Your task to perform on an android device: Open Android settings Image 0: 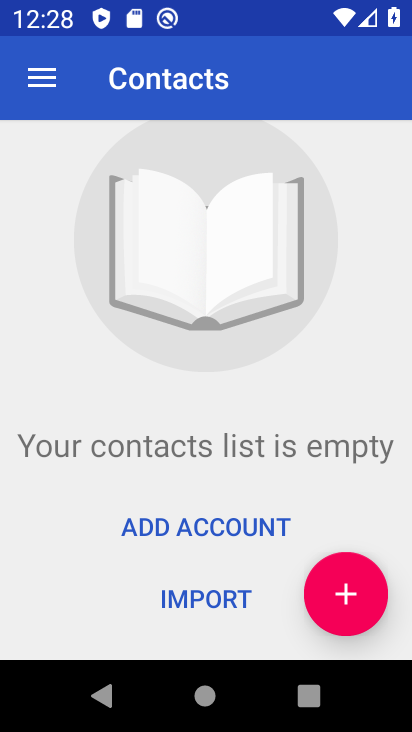
Step 0: press home button
Your task to perform on an android device: Open Android settings Image 1: 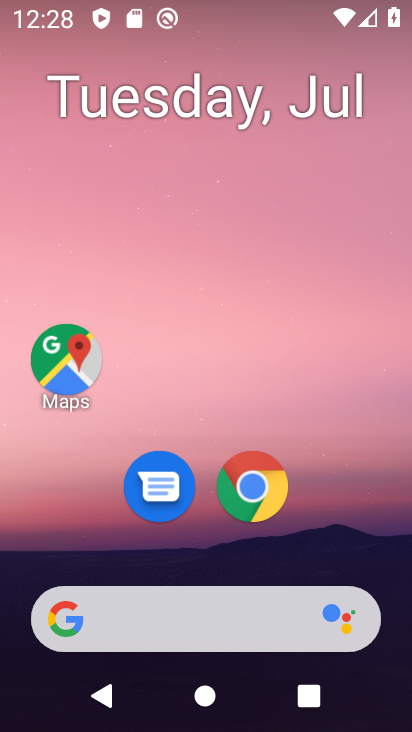
Step 1: drag from (357, 548) to (365, 110)
Your task to perform on an android device: Open Android settings Image 2: 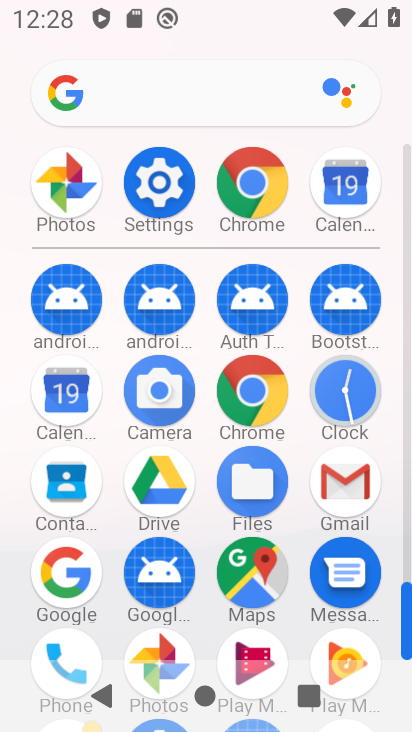
Step 2: click (161, 190)
Your task to perform on an android device: Open Android settings Image 3: 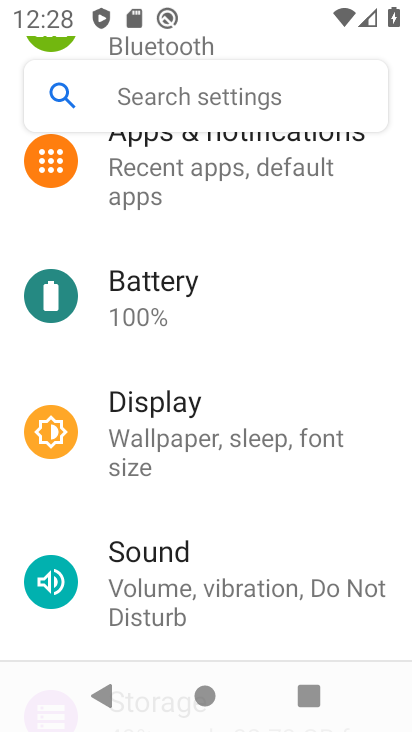
Step 3: drag from (350, 247) to (367, 415)
Your task to perform on an android device: Open Android settings Image 4: 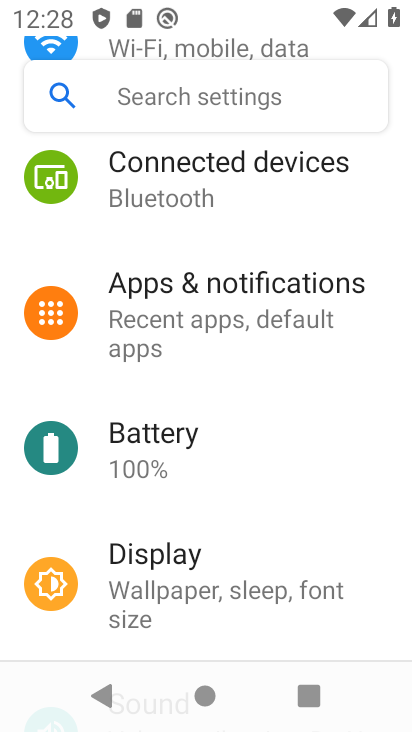
Step 4: drag from (364, 238) to (364, 377)
Your task to perform on an android device: Open Android settings Image 5: 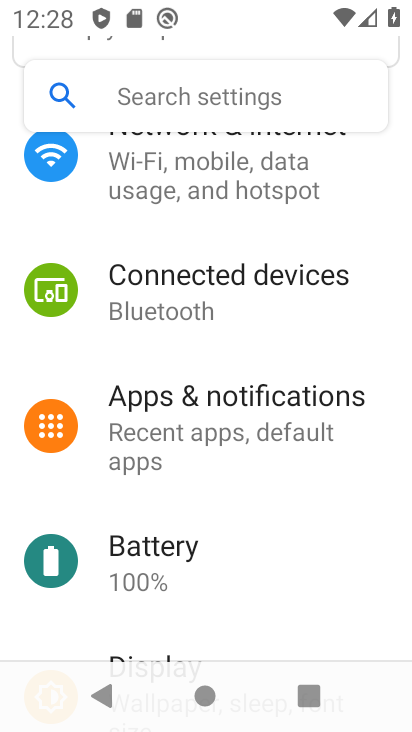
Step 5: drag from (379, 214) to (370, 388)
Your task to perform on an android device: Open Android settings Image 6: 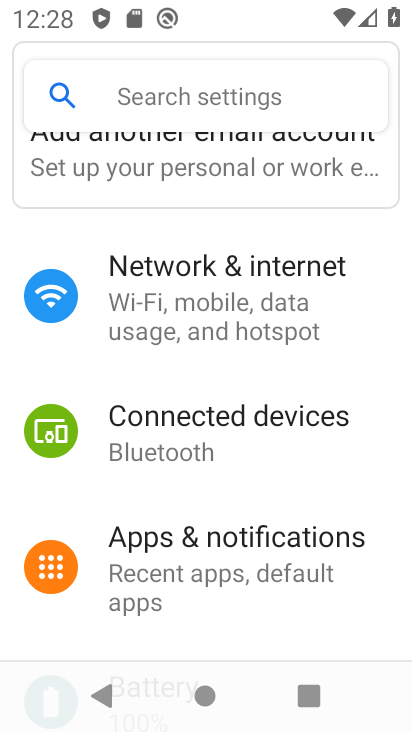
Step 6: drag from (367, 283) to (368, 458)
Your task to perform on an android device: Open Android settings Image 7: 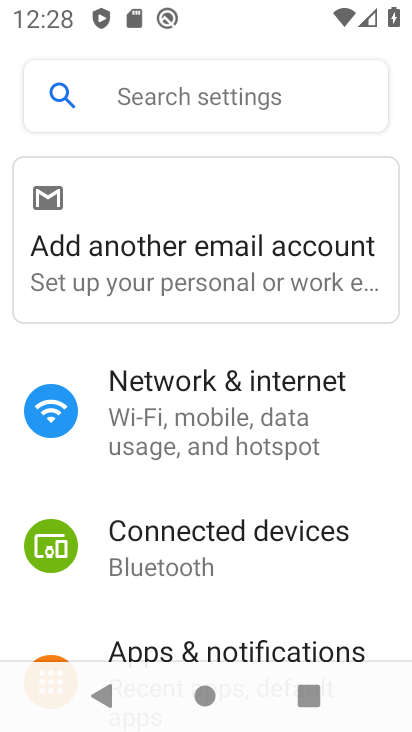
Step 7: drag from (362, 505) to (374, 414)
Your task to perform on an android device: Open Android settings Image 8: 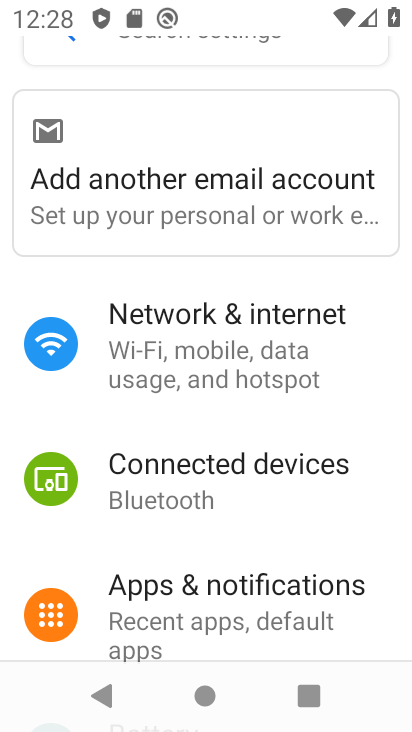
Step 8: drag from (369, 529) to (363, 411)
Your task to perform on an android device: Open Android settings Image 9: 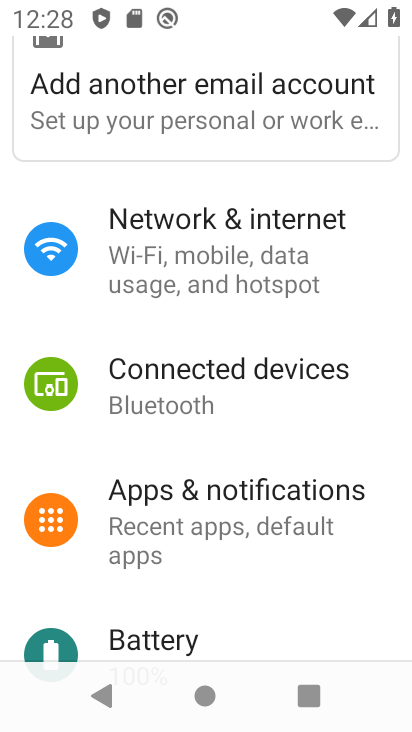
Step 9: drag from (369, 574) to (364, 447)
Your task to perform on an android device: Open Android settings Image 10: 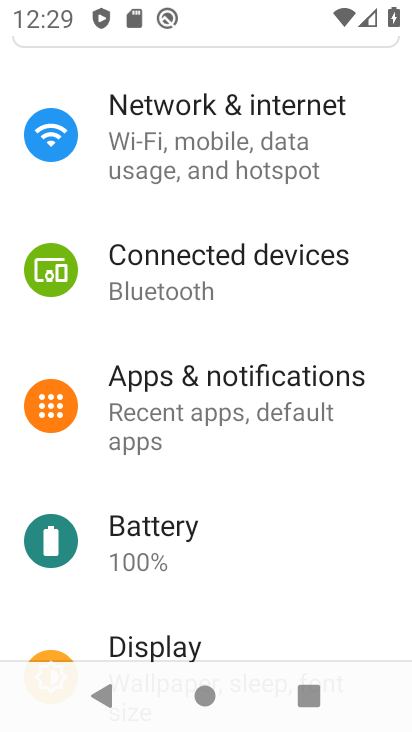
Step 10: drag from (347, 558) to (346, 434)
Your task to perform on an android device: Open Android settings Image 11: 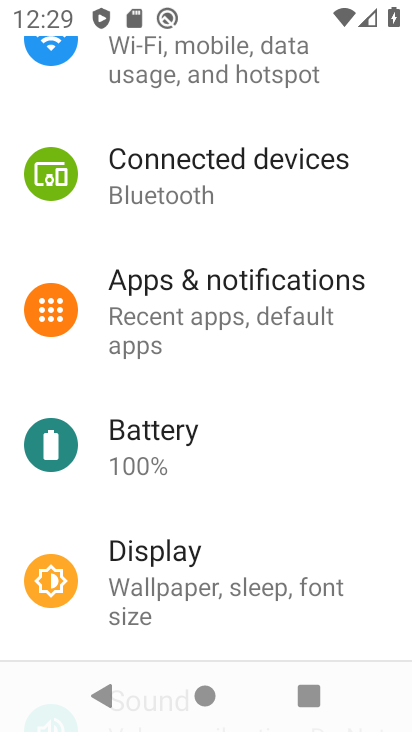
Step 11: drag from (356, 601) to (360, 474)
Your task to perform on an android device: Open Android settings Image 12: 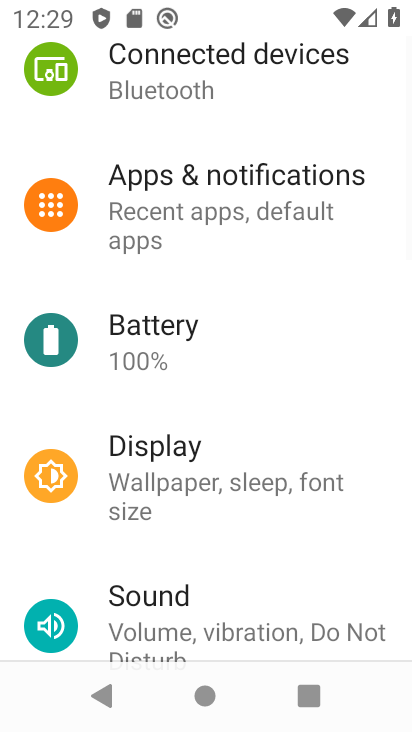
Step 12: drag from (356, 586) to (358, 399)
Your task to perform on an android device: Open Android settings Image 13: 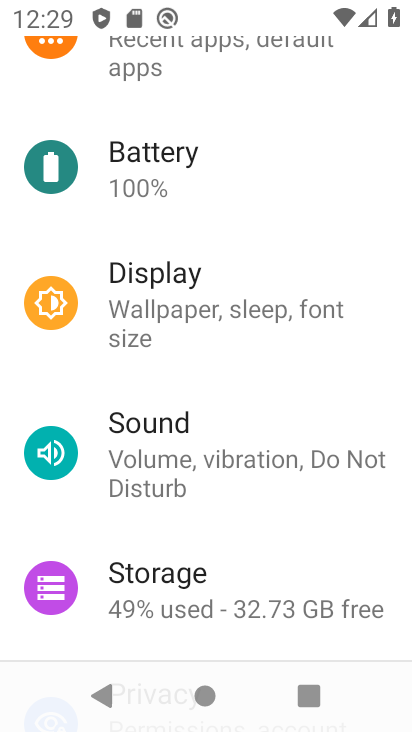
Step 13: drag from (365, 529) to (379, 351)
Your task to perform on an android device: Open Android settings Image 14: 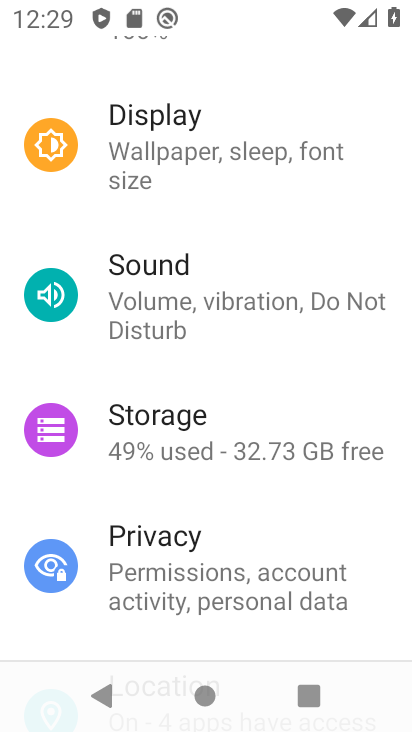
Step 14: drag from (350, 506) to (350, 359)
Your task to perform on an android device: Open Android settings Image 15: 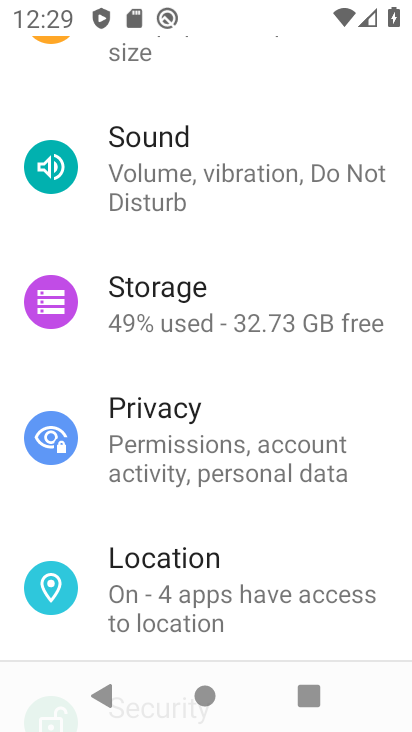
Step 15: drag from (348, 529) to (359, 404)
Your task to perform on an android device: Open Android settings Image 16: 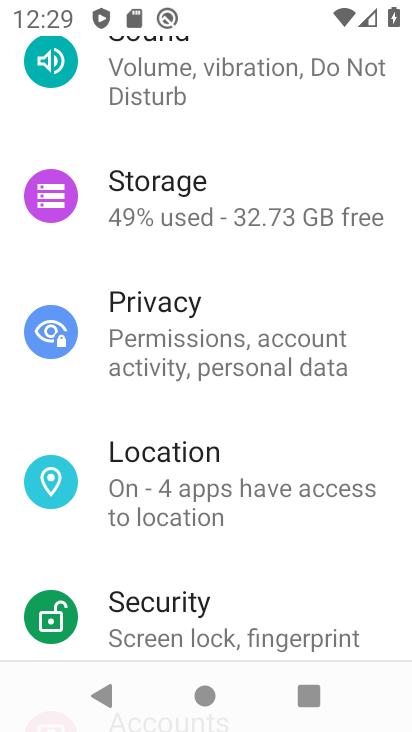
Step 16: drag from (336, 555) to (333, 413)
Your task to perform on an android device: Open Android settings Image 17: 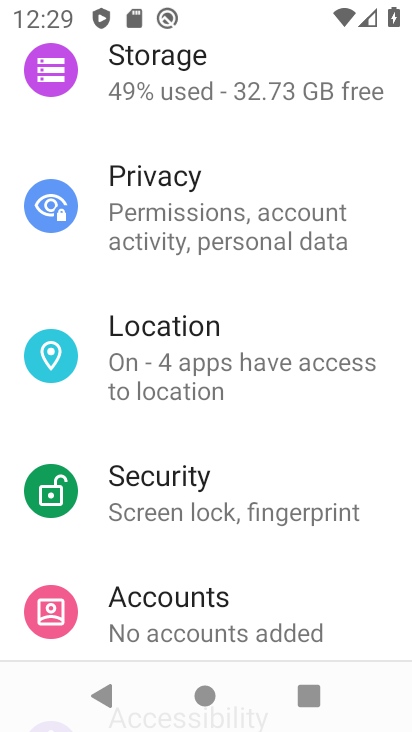
Step 17: drag from (336, 574) to (336, 448)
Your task to perform on an android device: Open Android settings Image 18: 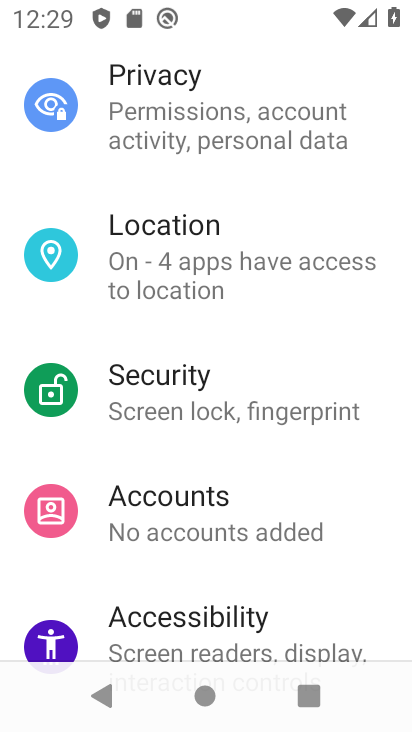
Step 18: drag from (345, 568) to (362, 456)
Your task to perform on an android device: Open Android settings Image 19: 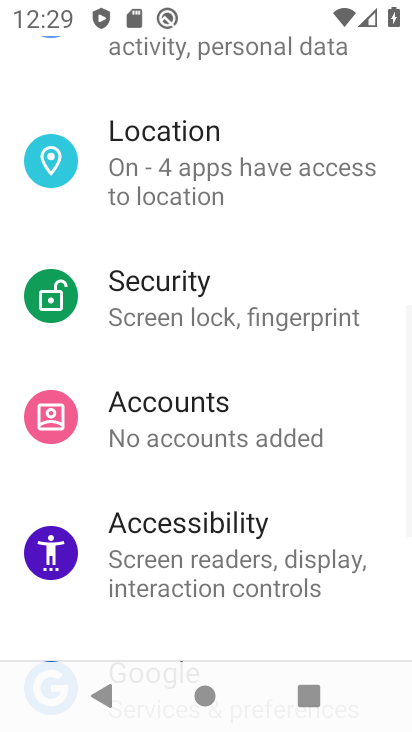
Step 19: drag from (355, 612) to (366, 423)
Your task to perform on an android device: Open Android settings Image 20: 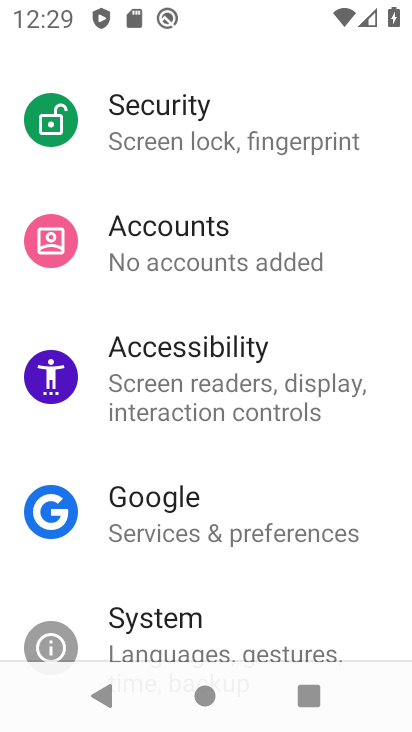
Step 20: drag from (342, 612) to (346, 498)
Your task to perform on an android device: Open Android settings Image 21: 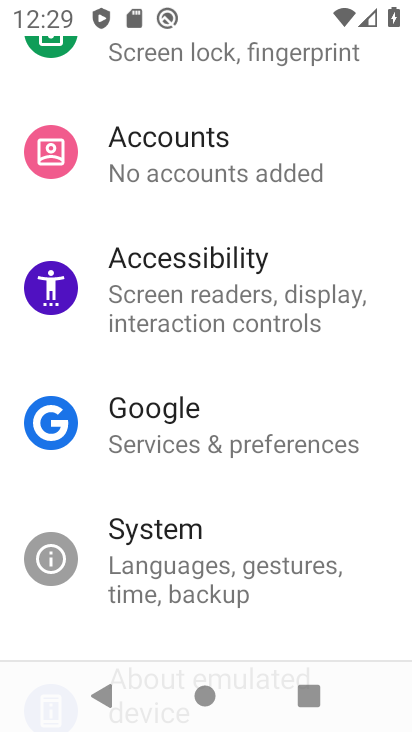
Step 21: drag from (360, 627) to (362, 454)
Your task to perform on an android device: Open Android settings Image 22: 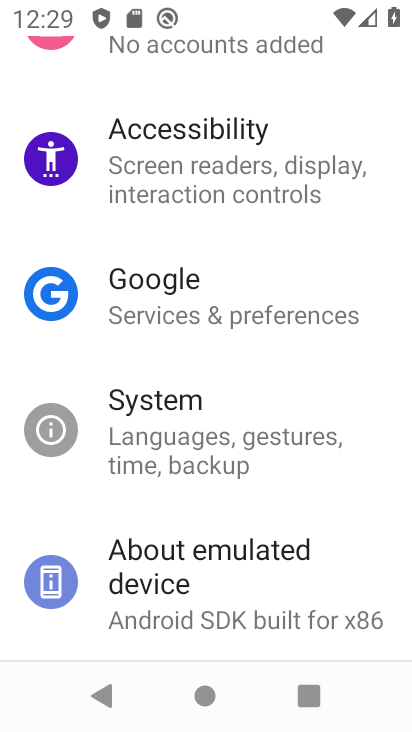
Step 22: drag from (349, 561) to (361, 370)
Your task to perform on an android device: Open Android settings Image 23: 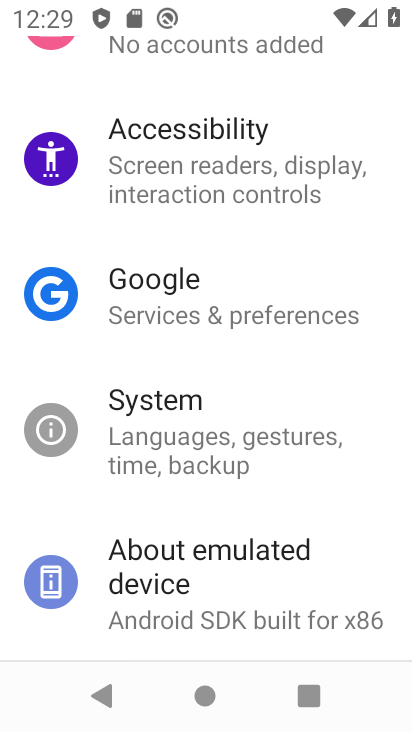
Step 23: click (249, 463)
Your task to perform on an android device: Open Android settings Image 24: 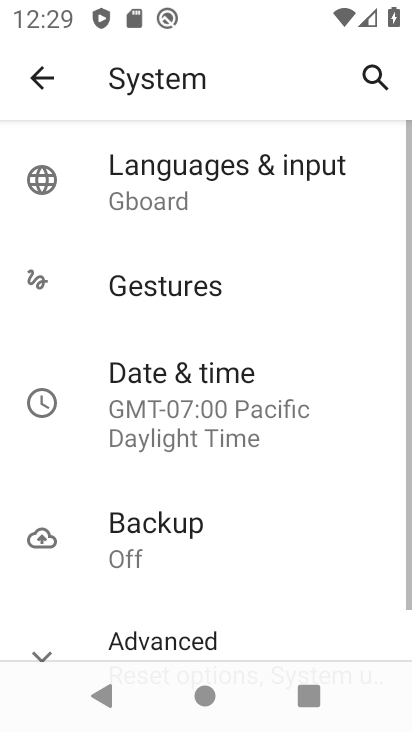
Step 24: drag from (299, 590) to (300, 446)
Your task to perform on an android device: Open Android settings Image 25: 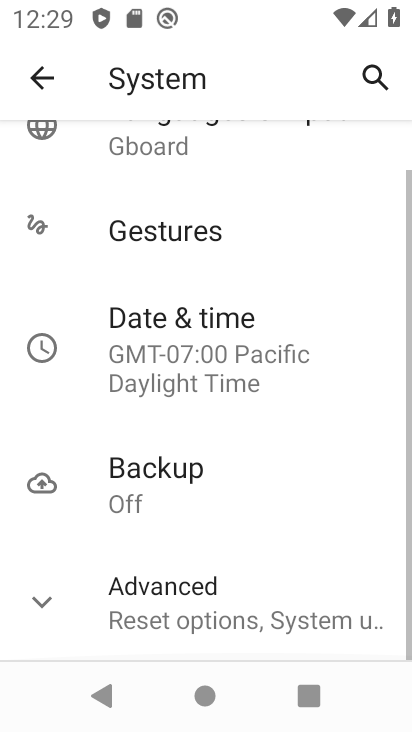
Step 25: click (274, 595)
Your task to perform on an android device: Open Android settings Image 26: 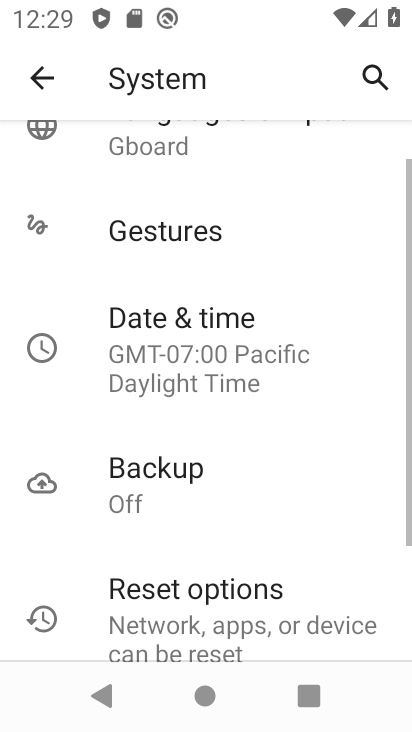
Step 26: task complete